Your task to perform on an android device: Open the phone app and click the voicemail tab. Image 0: 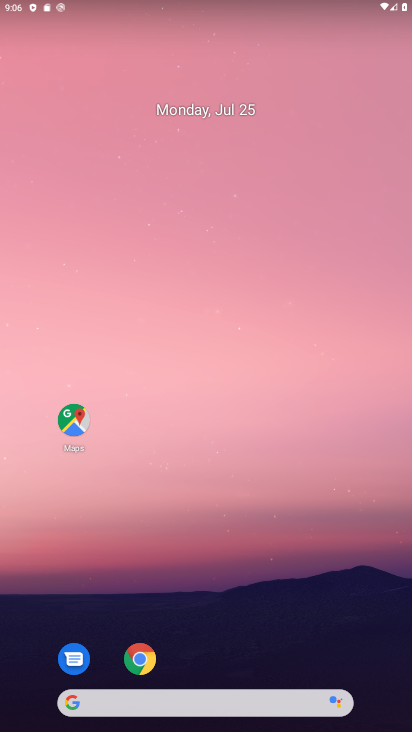
Step 0: drag from (235, 639) to (262, 151)
Your task to perform on an android device: Open the phone app and click the voicemail tab. Image 1: 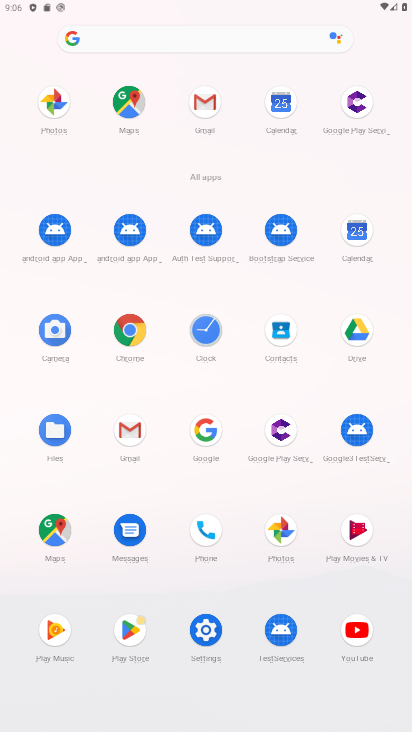
Step 1: click (205, 547)
Your task to perform on an android device: Open the phone app and click the voicemail tab. Image 2: 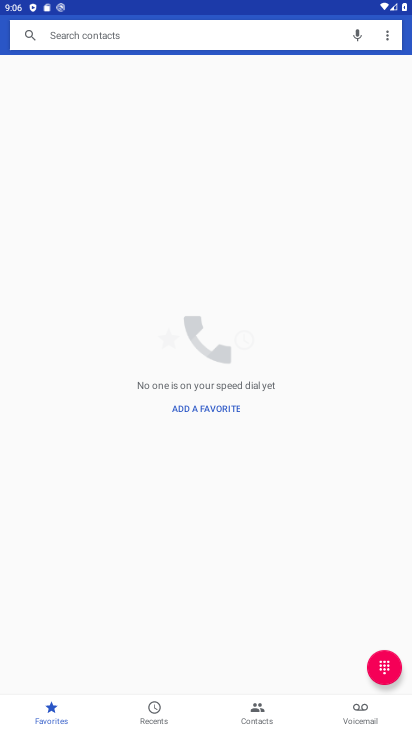
Step 2: click (353, 711)
Your task to perform on an android device: Open the phone app and click the voicemail tab. Image 3: 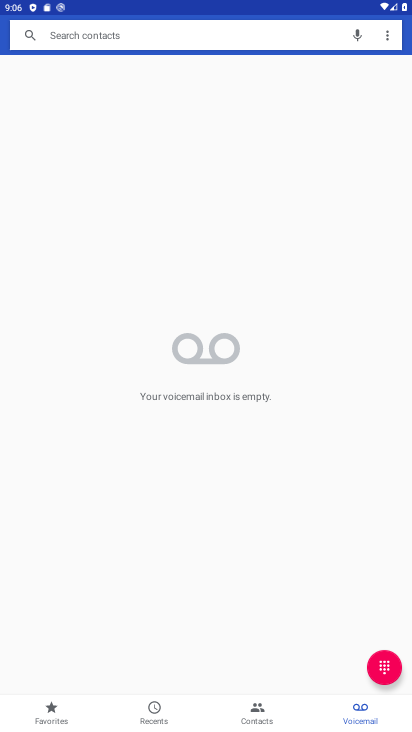
Step 3: task complete